Your task to perform on an android device: uninstall "eBay: The shopping marketplace" Image 0: 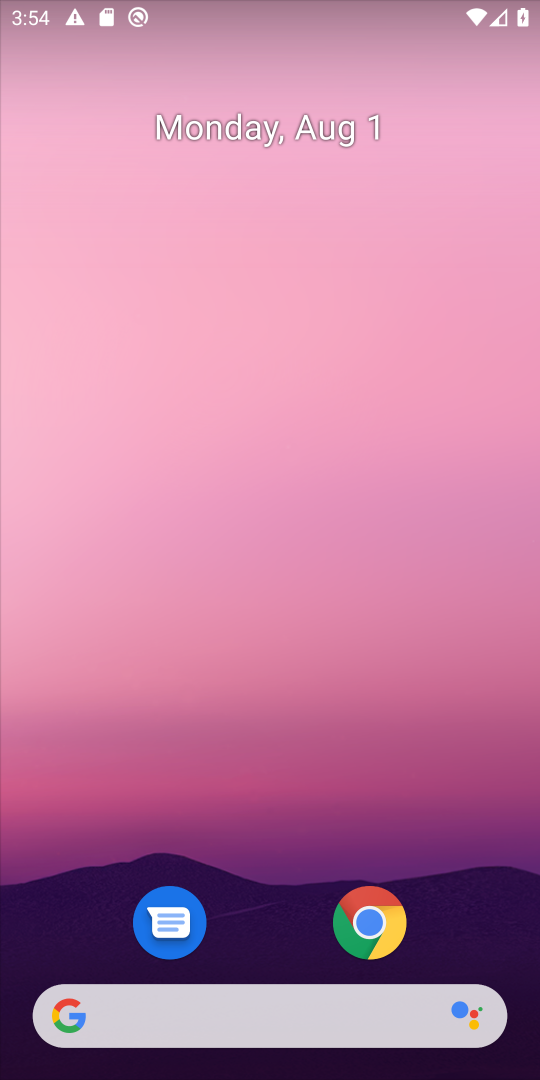
Step 0: press home button
Your task to perform on an android device: uninstall "eBay: The shopping marketplace" Image 1: 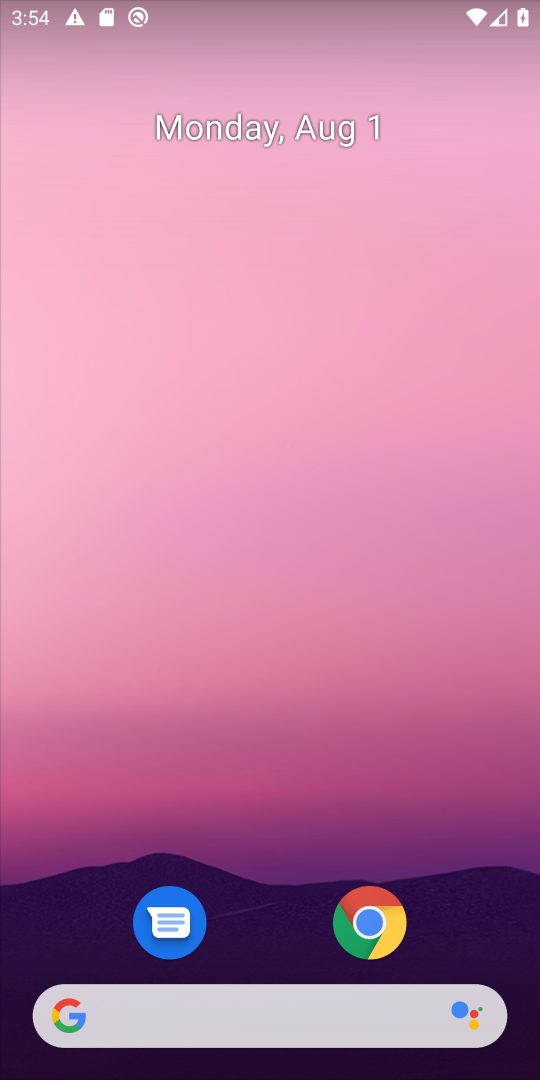
Step 1: drag from (259, 950) to (320, 6)
Your task to perform on an android device: uninstall "eBay: The shopping marketplace" Image 2: 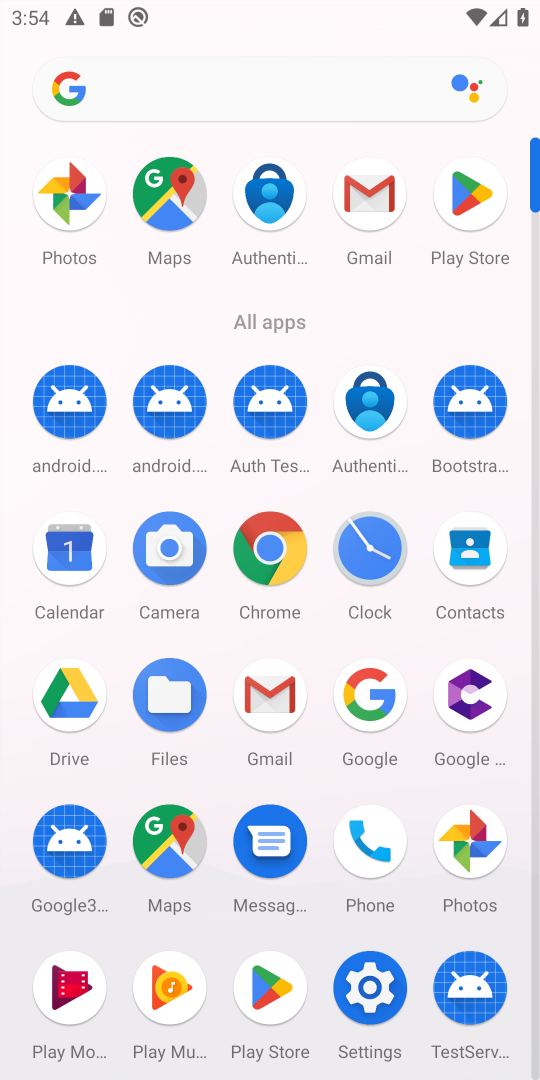
Step 2: click (465, 198)
Your task to perform on an android device: uninstall "eBay: The shopping marketplace" Image 3: 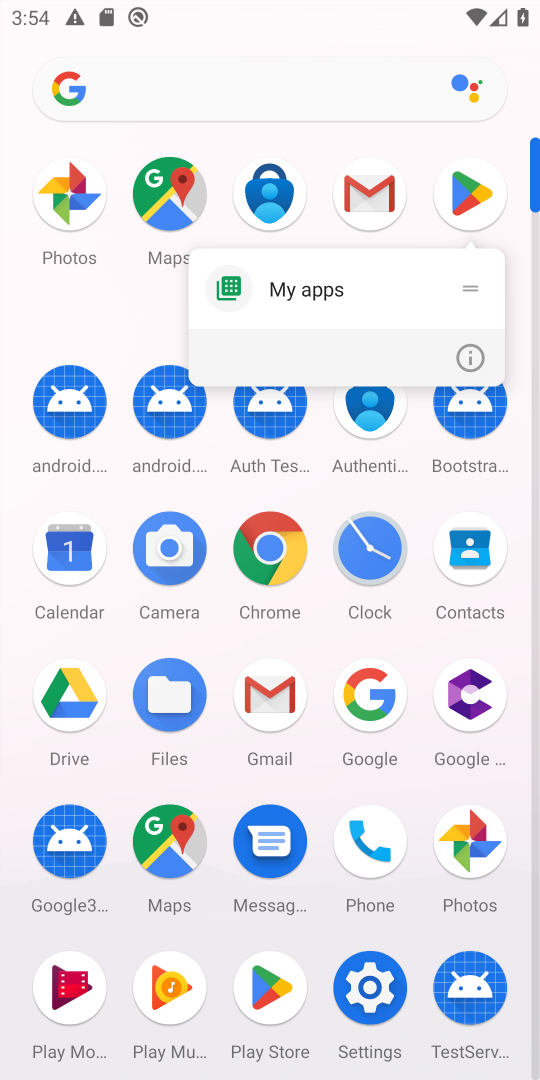
Step 3: click (465, 198)
Your task to perform on an android device: uninstall "eBay: The shopping marketplace" Image 4: 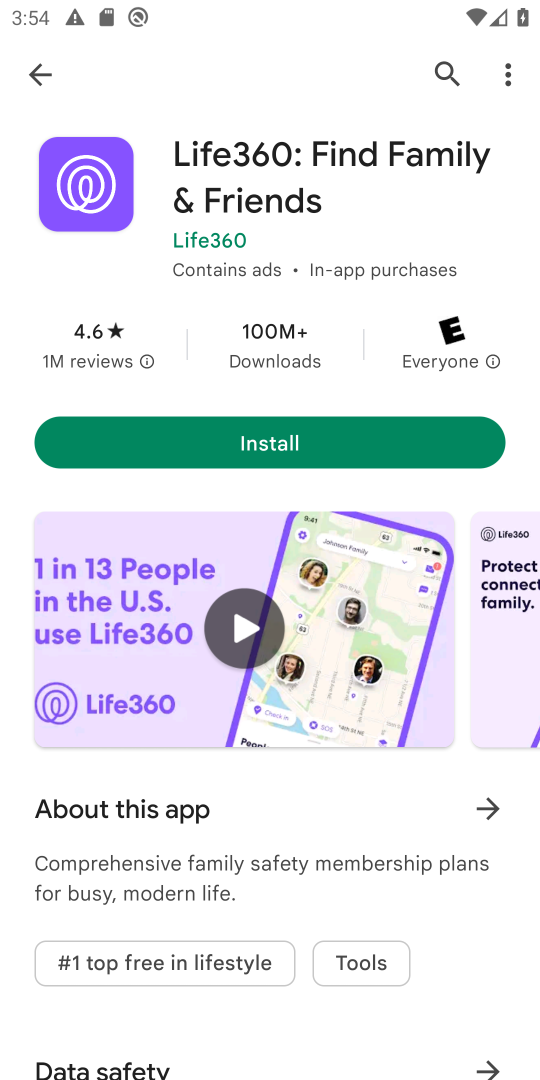
Step 4: click (444, 67)
Your task to perform on an android device: uninstall "eBay: The shopping marketplace" Image 5: 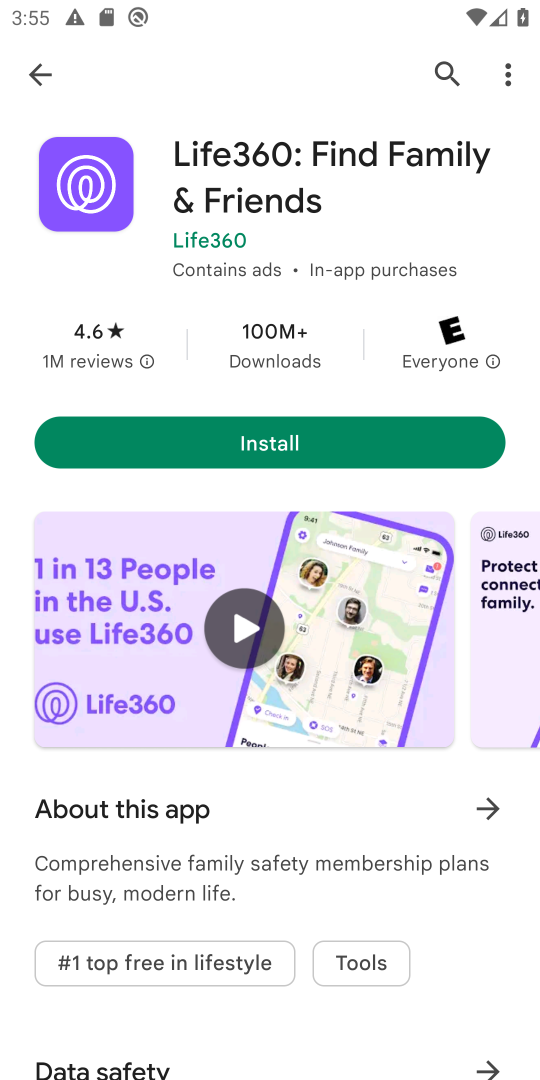
Step 5: click (449, 74)
Your task to perform on an android device: uninstall "eBay: The shopping marketplace" Image 6: 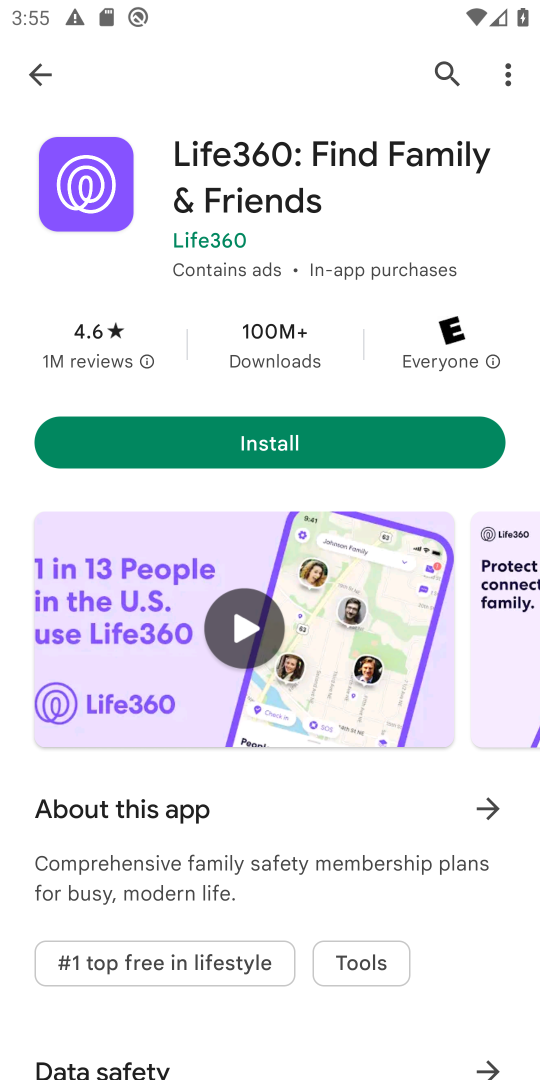
Step 6: click (449, 74)
Your task to perform on an android device: uninstall "eBay: The shopping marketplace" Image 7: 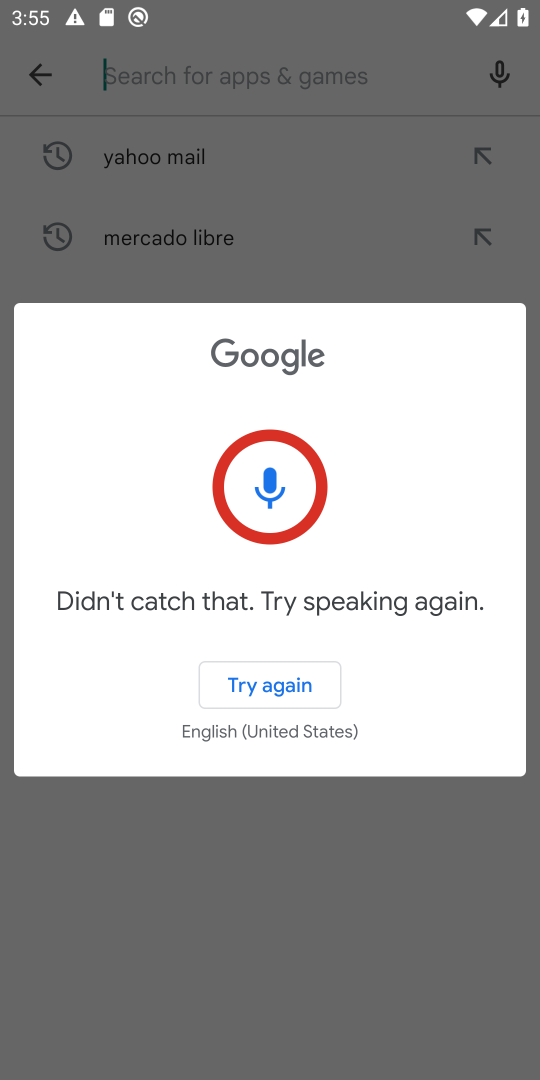
Step 7: type "eBay: The shopping marketplace"
Your task to perform on an android device: uninstall "eBay: The shopping marketplace" Image 8: 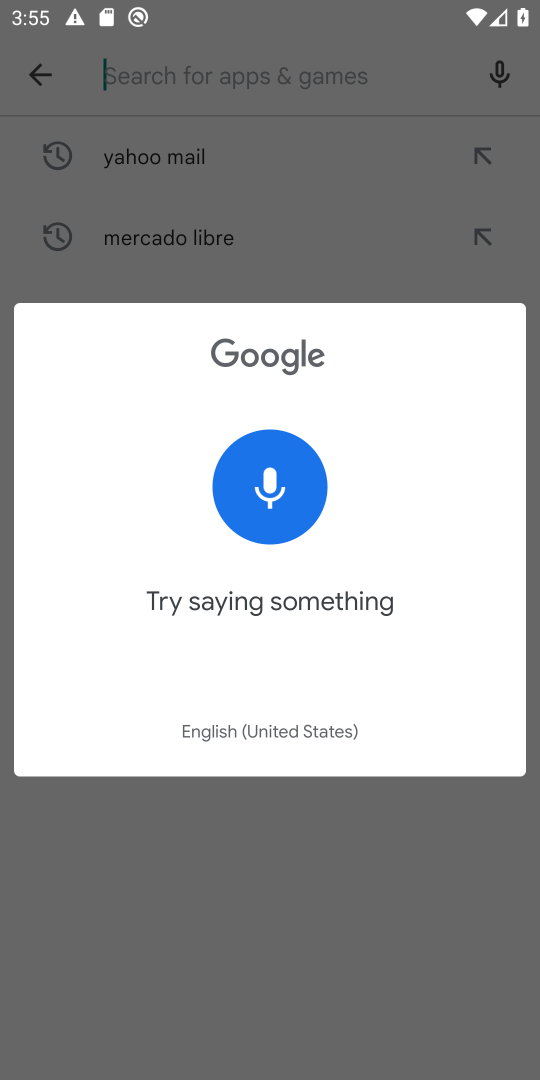
Step 8: click (245, 79)
Your task to perform on an android device: uninstall "eBay: The shopping marketplace" Image 9: 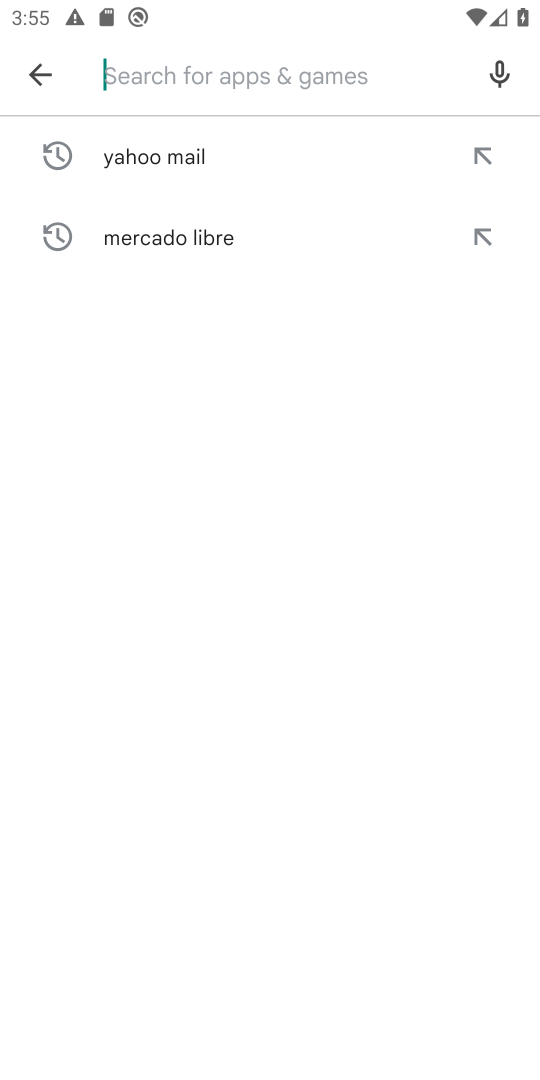
Step 9: type "eBay: The shopping marketplace"
Your task to perform on an android device: uninstall "eBay: The shopping marketplace" Image 10: 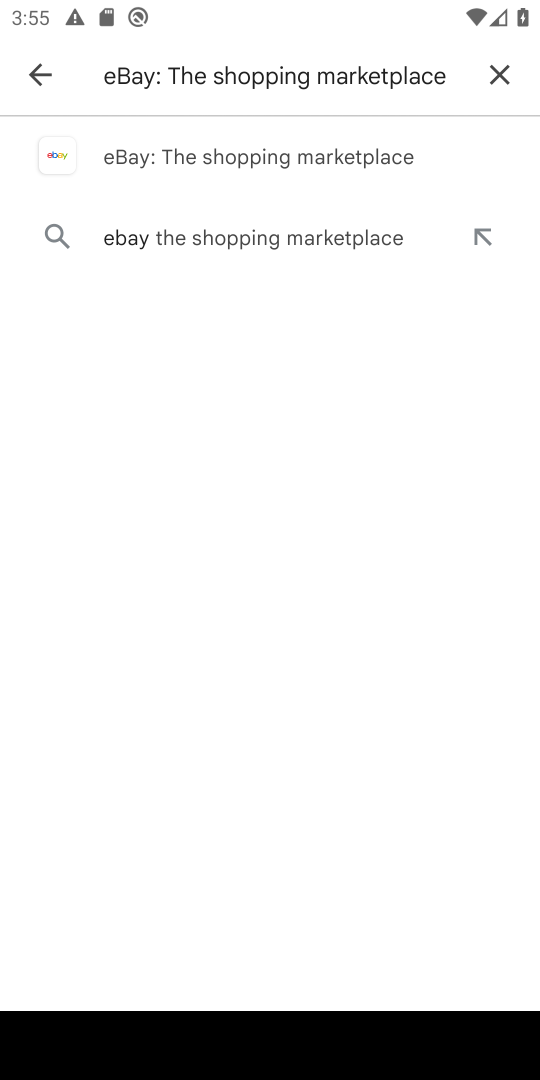
Step 10: click (124, 157)
Your task to perform on an android device: uninstall "eBay: The shopping marketplace" Image 11: 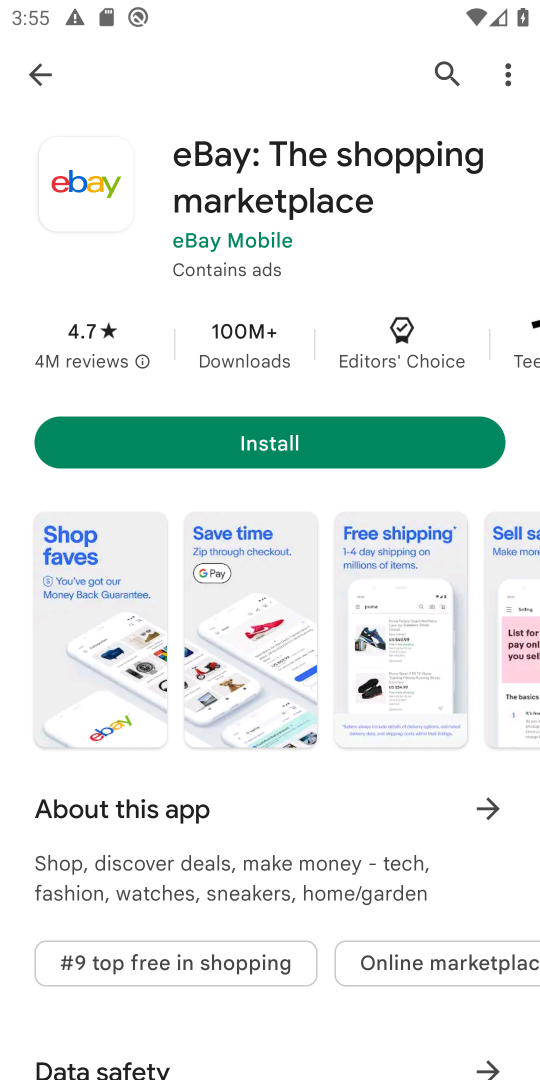
Step 11: task complete